Your task to perform on an android device: Go to Yahoo.com Image 0: 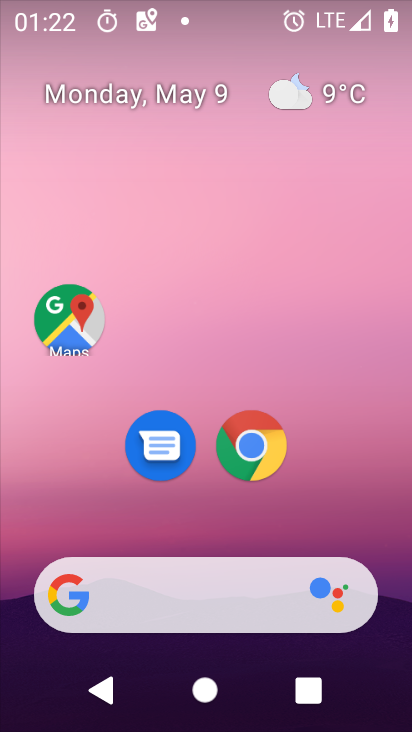
Step 0: click (254, 455)
Your task to perform on an android device: Go to Yahoo.com Image 1: 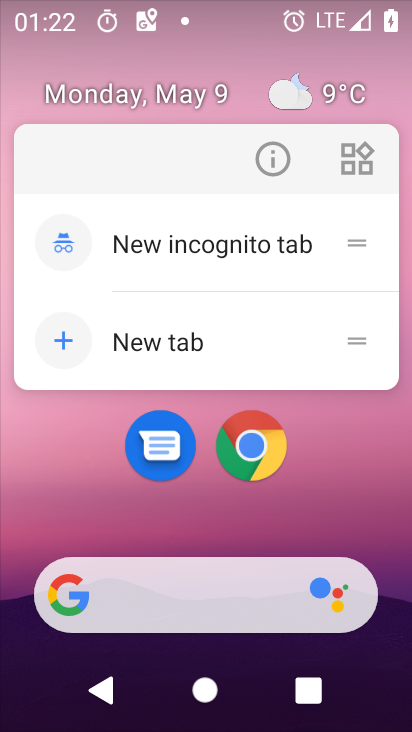
Step 1: click (255, 456)
Your task to perform on an android device: Go to Yahoo.com Image 2: 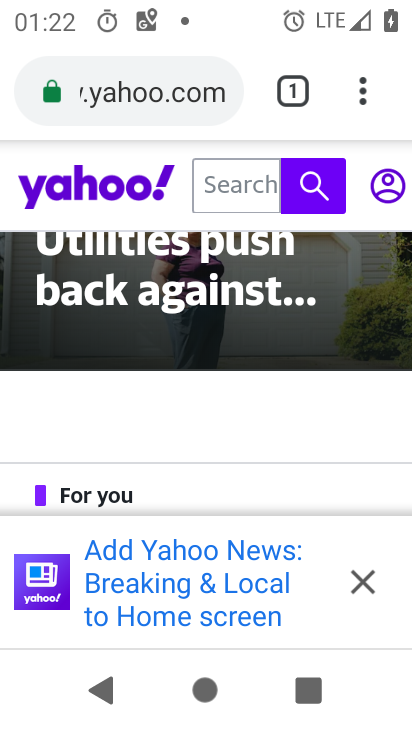
Step 2: task complete